Your task to perform on an android device: see creations saved in the google photos Image 0: 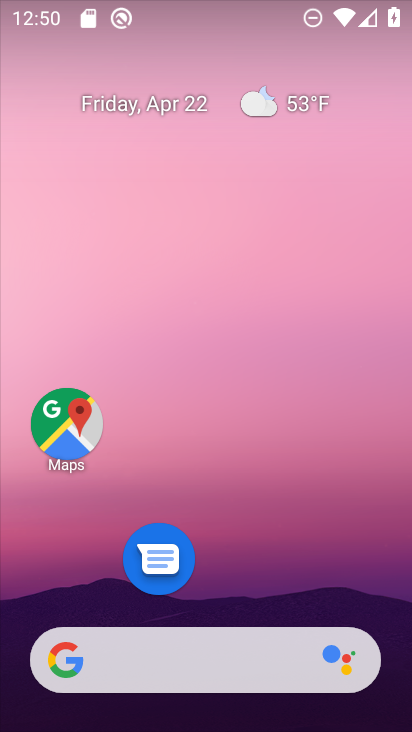
Step 0: drag from (230, 726) to (207, 66)
Your task to perform on an android device: see creations saved in the google photos Image 1: 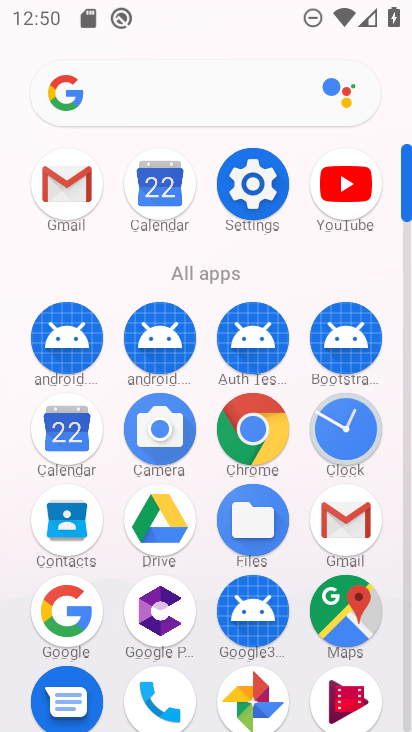
Step 1: click (260, 698)
Your task to perform on an android device: see creations saved in the google photos Image 2: 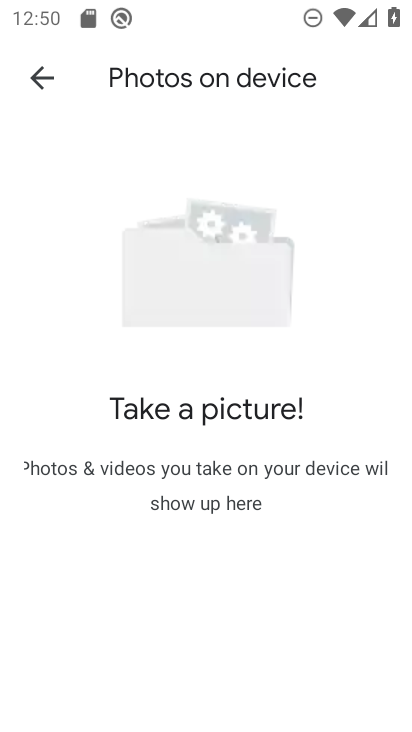
Step 2: click (37, 75)
Your task to perform on an android device: see creations saved in the google photos Image 3: 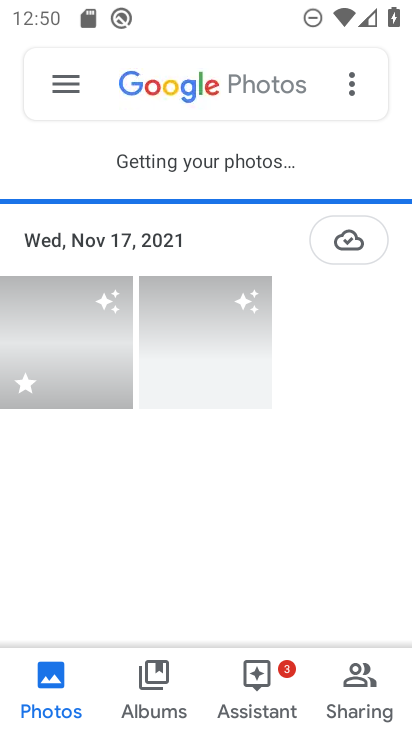
Step 3: click (201, 88)
Your task to perform on an android device: see creations saved in the google photos Image 4: 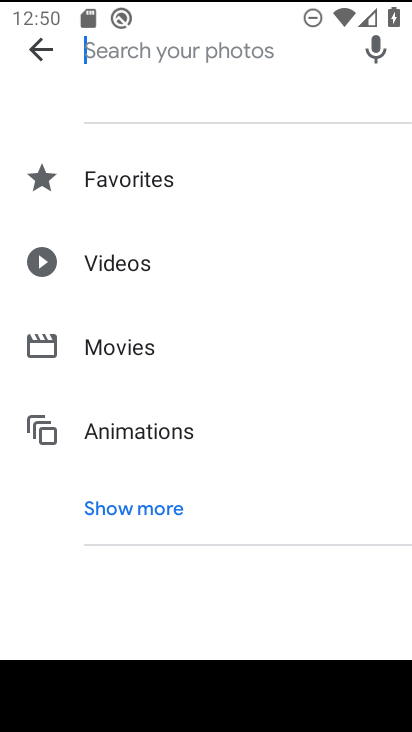
Step 4: click (128, 508)
Your task to perform on an android device: see creations saved in the google photos Image 5: 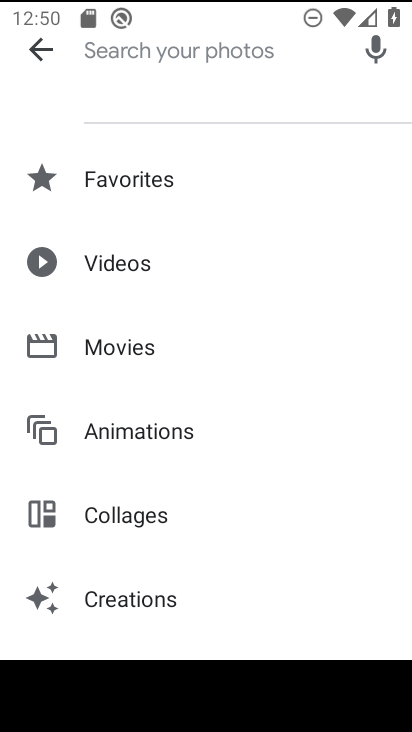
Step 5: click (134, 594)
Your task to perform on an android device: see creations saved in the google photos Image 6: 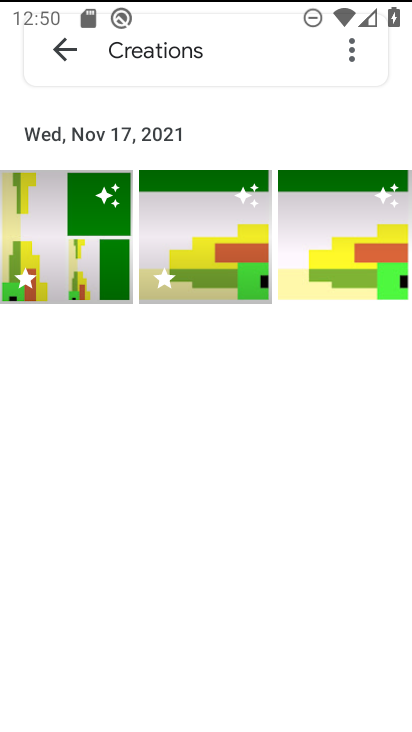
Step 6: task complete